Your task to perform on an android device: Open calendar and show me the fourth week of next month Image 0: 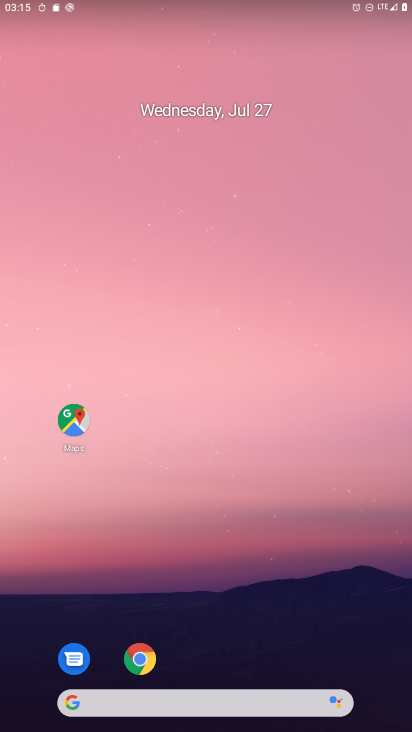
Step 0: drag from (306, 671) to (305, 168)
Your task to perform on an android device: Open calendar and show me the fourth week of next month Image 1: 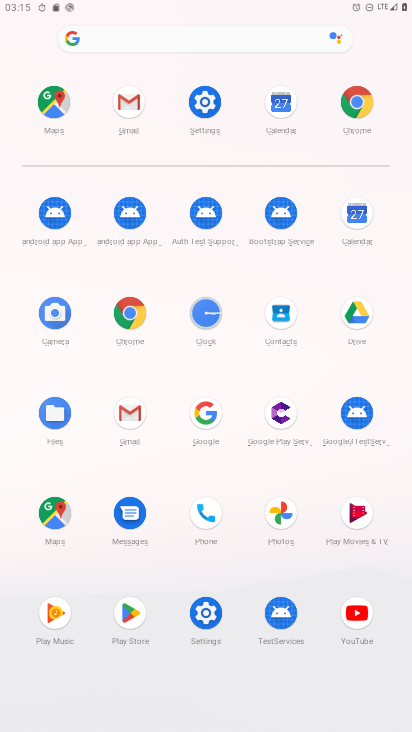
Step 1: click (359, 218)
Your task to perform on an android device: Open calendar and show me the fourth week of next month Image 2: 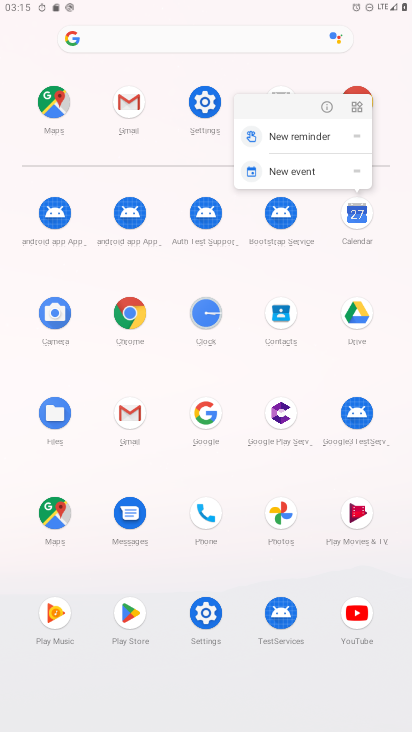
Step 2: click (359, 214)
Your task to perform on an android device: Open calendar and show me the fourth week of next month Image 3: 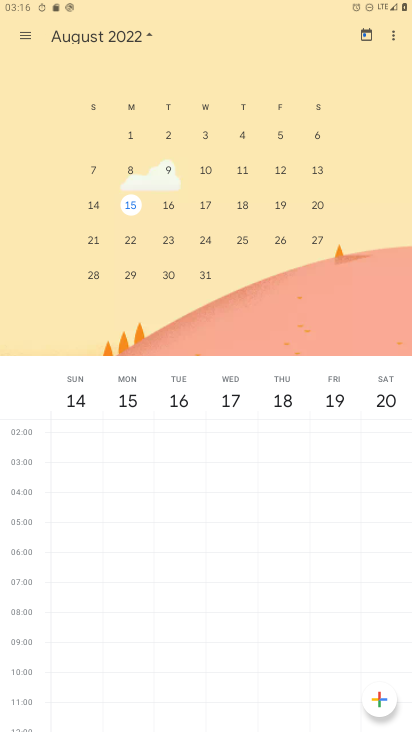
Step 3: click (126, 37)
Your task to perform on an android device: Open calendar and show me the fourth week of next month Image 4: 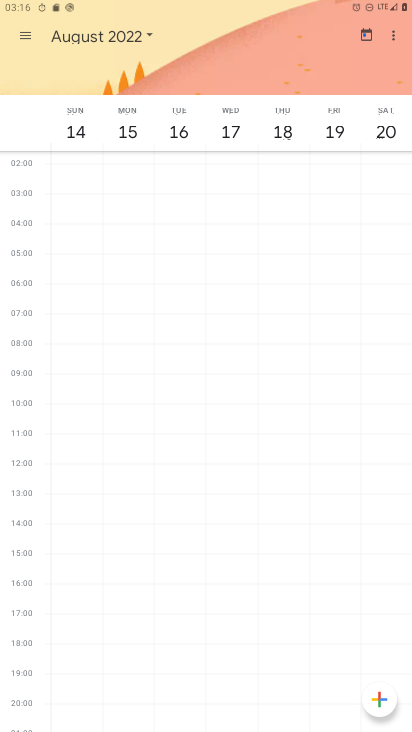
Step 4: click (130, 38)
Your task to perform on an android device: Open calendar and show me the fourth week of next month Image 5: 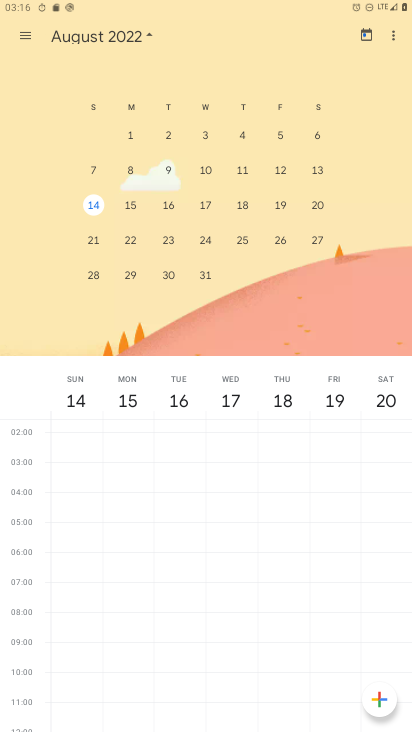
Step 5: click (196, 242)
Your task to perform on an android device: Open calendar and show me the fourth week of next month Image 6: 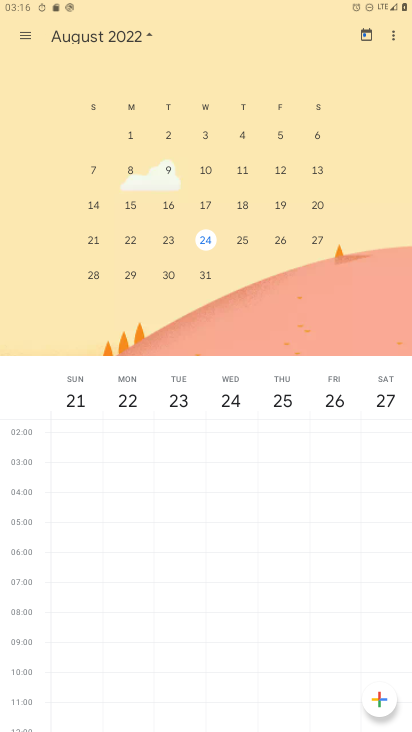
Step 6: click (29, 25)
Your task to perform on an android device: Open calendar and show me the fourth week of next month Image 7: 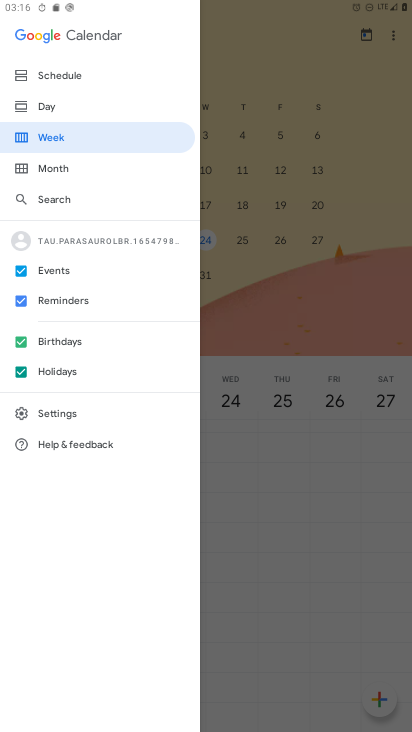
Step 7: click (53, 139)
Your task to perform on an android device: Open calendar and show me the fourth week of next month Image 8: 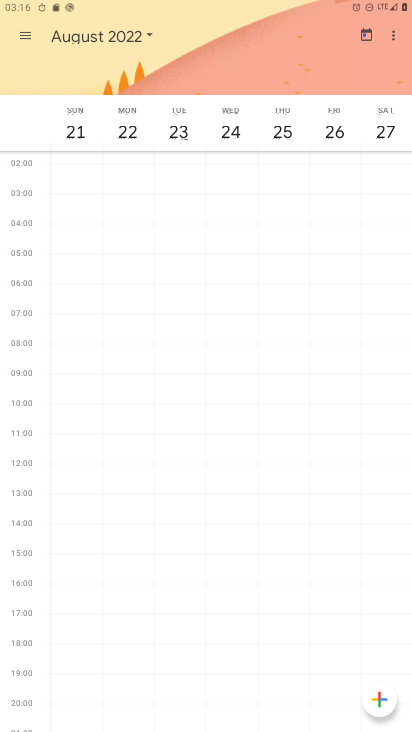
Step 8: task complete